Your task to perform on an android device: Open the stopwatch Image 0: 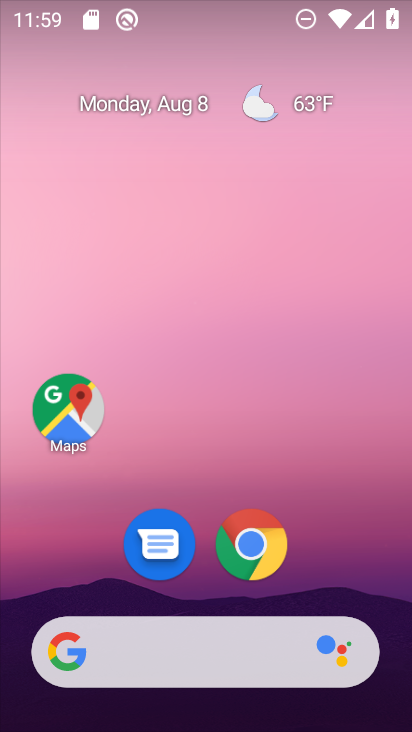
Step 0: drag from (175, 675) to (219, 109)
Your task to perform on an android device: Open the stopwatch Image 1: 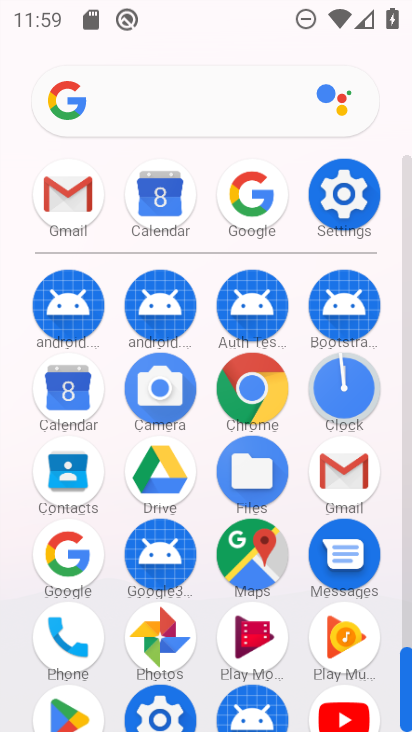
Step 1: click (345, 386)
Your task to perform on an android device: Open the stopwatch Image 2: 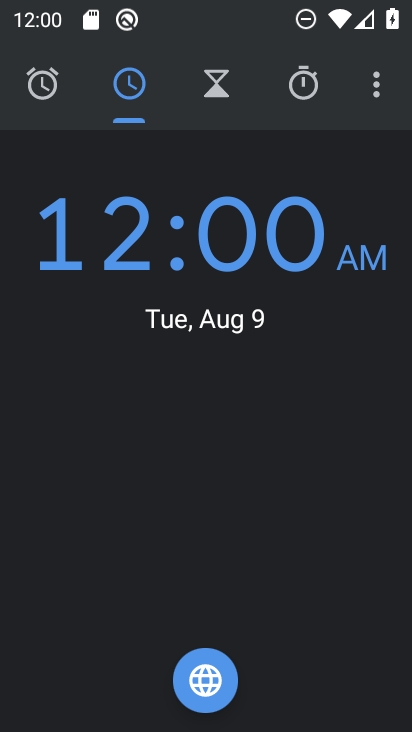
Step 2: click (310, 92)
Your task to perform on an android device: Open the stopwatch Image 3: 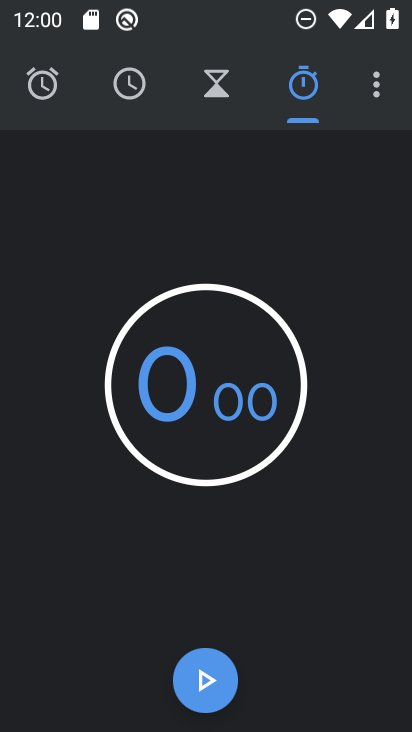
Step 3: task complete